Your task to perform on an android device: Go to notification settings Image 0: 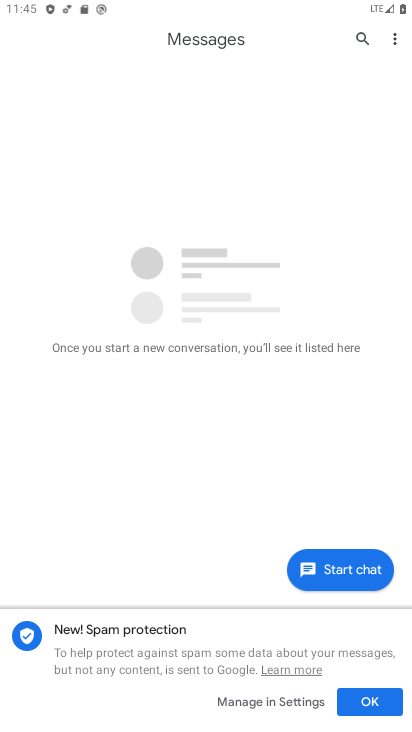
Step 0: press home button
Your task to perform on an android device: Go to notification settings Image 1: 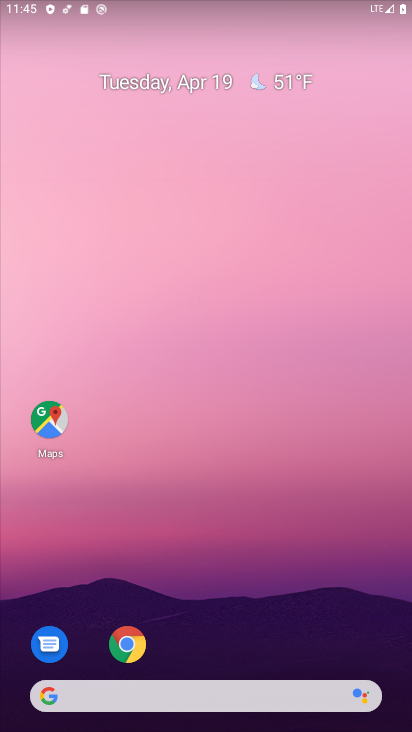
Step 1: drag from (216, 724) to (221, 130)
Your task to perform on an android device: Go to notification settings Image 2: 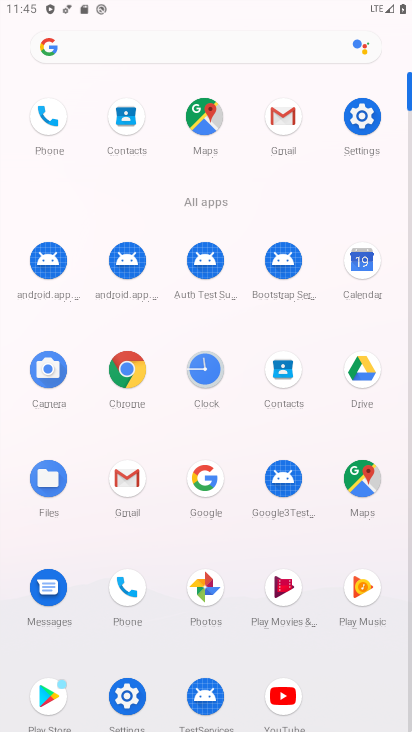
Step 2: click (361, 114)
Your task to perform on an android device: Go to notification settings Image 3: 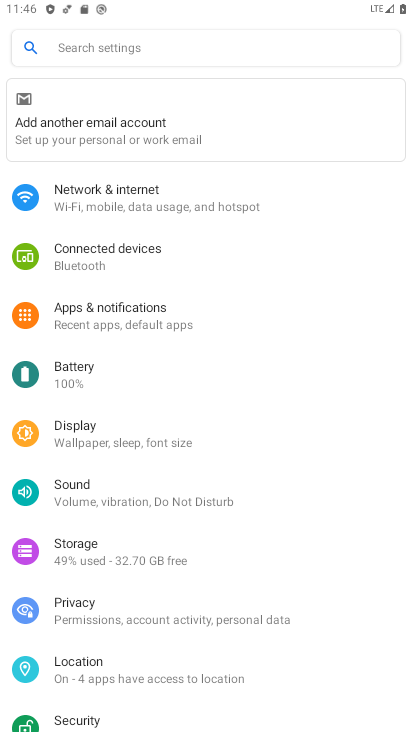
Step 3: click (126, 317)
Your task to perform on an android device: Go to notification settings Image 4: 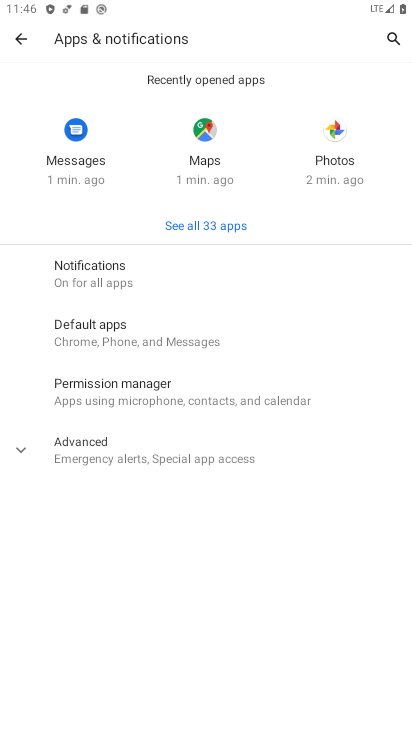
Step 4: click (95, 278)
Your task to perform on an android device: Go to notification settings Image 5: 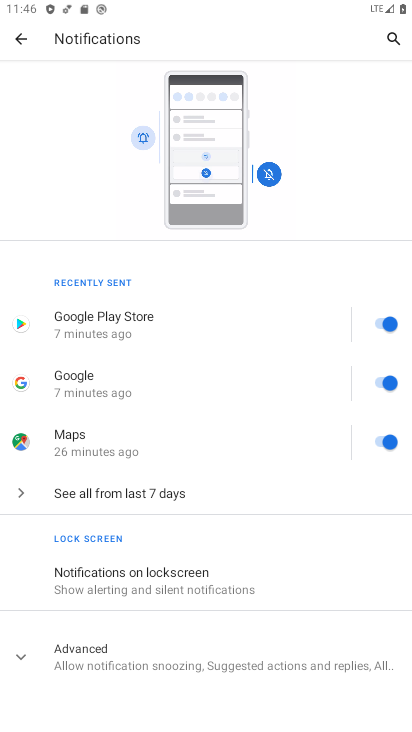
Step 5: task complete